Your task to perform on an android device: Go to accessibility settings Image 0: 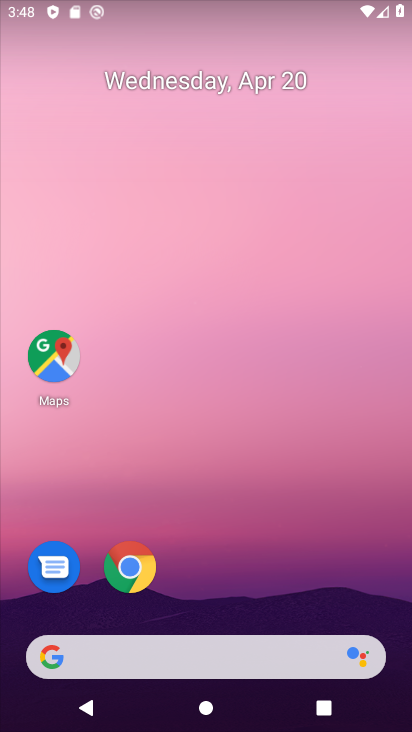
Step 0: click (315, 536)
Your task to perform on an android device: Go to accessibility settings Image 1: 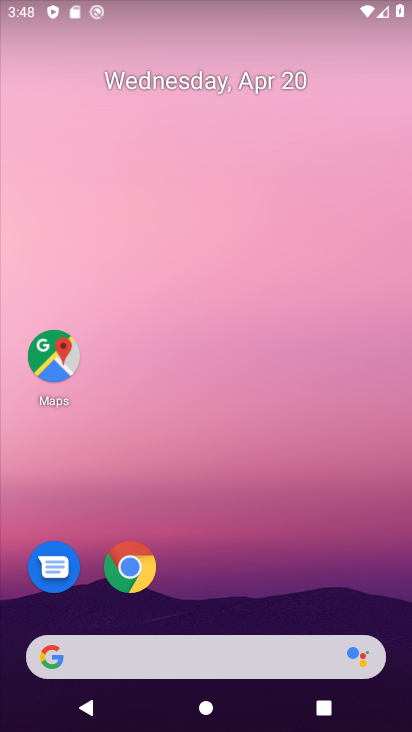
Step 1: click (125, 558)
Your task to perform on an android device: Go to accessibility settings Image 2: 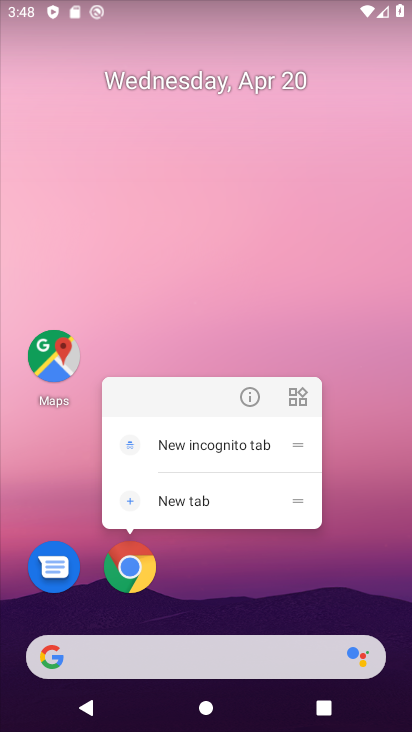
Step 2: click (130, 573)
Your task to perform on an android device: Go to accessibility settings Image 3: 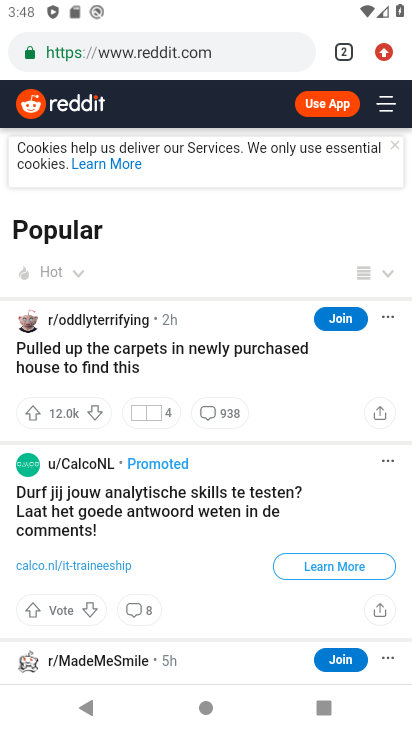
Step 3: click (384, 73)
Your task to perform on an android device: Go to accessibility settings Image 4: 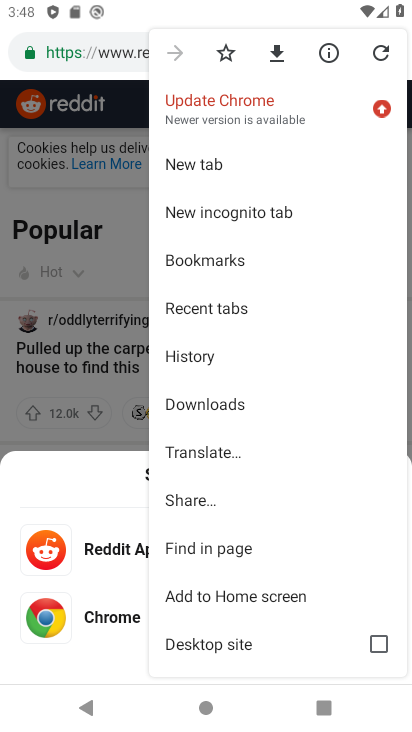
Step 4: drag from (241, 637) to (161, 404)
Your task to perform on an android device: Go to accessibility settings Image 5: 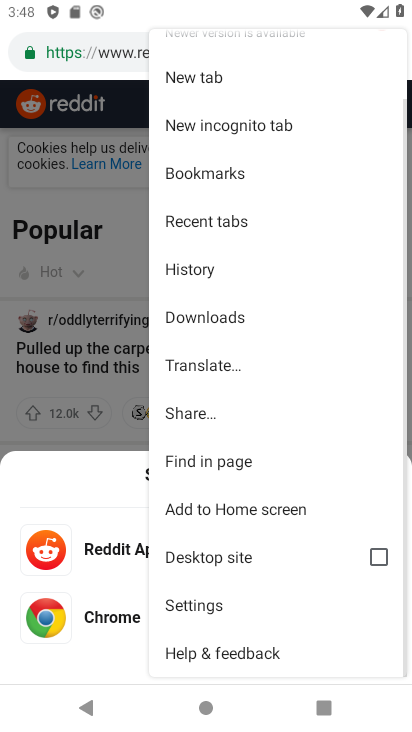
Step 5: click (211, 615)
Your task to perform on an android device: Go to accessibility settings Image 6: 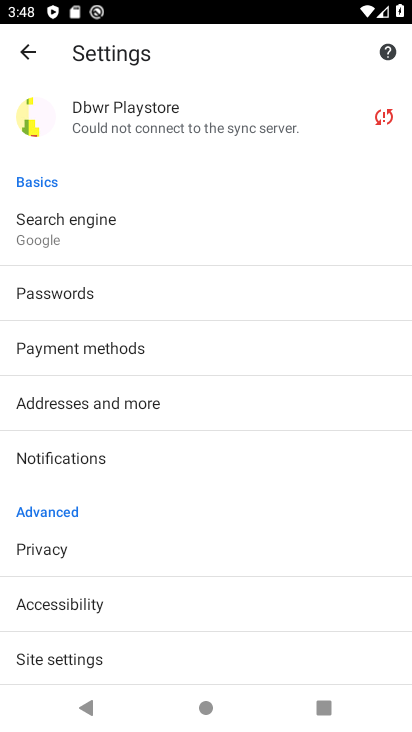
Step 6: click (211, 615)
Your task to perform on an android device: Go to accessibility settings Image 7: 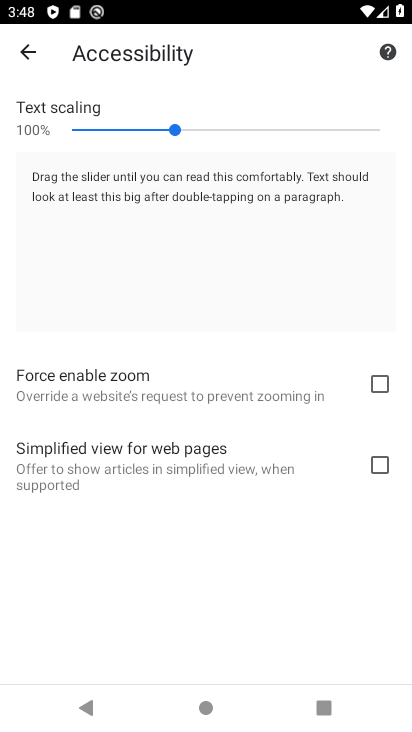
Step 7: task complete